Your task to perform on an android device: Open Maps and search for coffee Image 0: 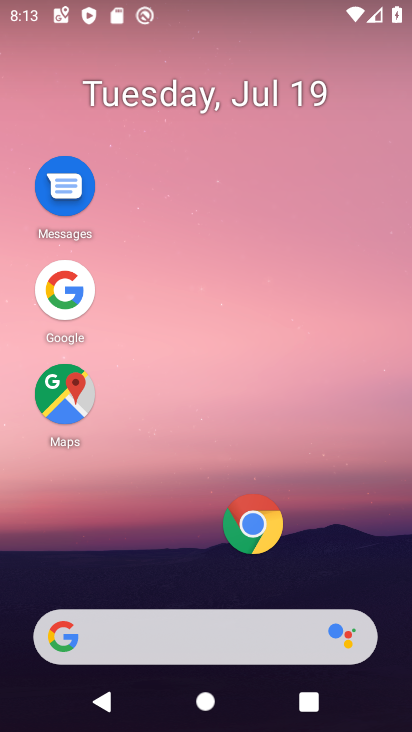
Step 0: click (80, 390)
Your task to perform on an android device: Open Maps and search for coffee Image 1: 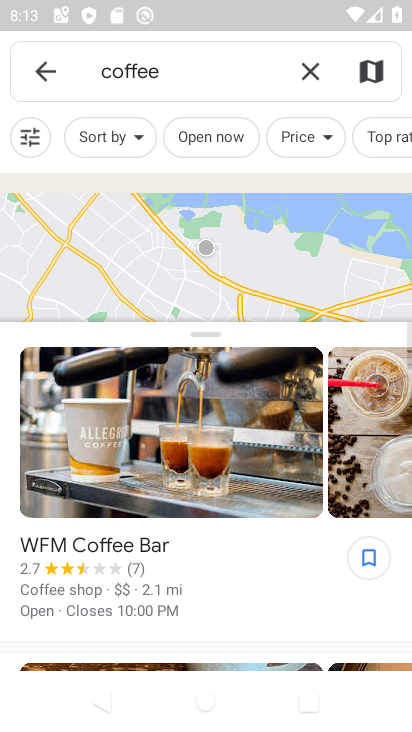
Step 1: task complete